Your task to perform on an android device: clear all cookies in the chrome app Image 0: 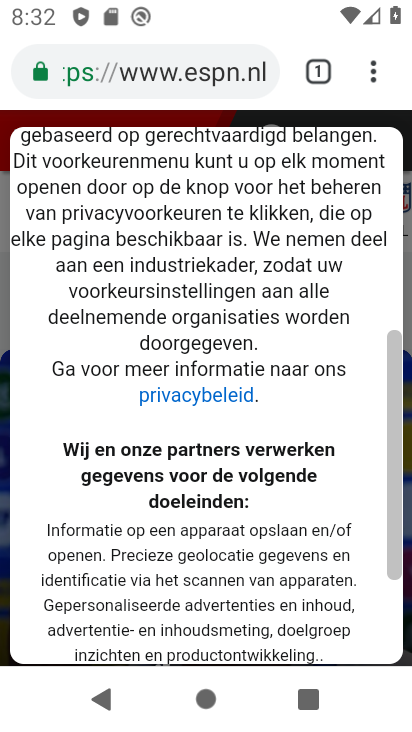
Step 0: click (372, 92)
Your task to perform on an android device: clear all cookies in the chrome app Image 1: 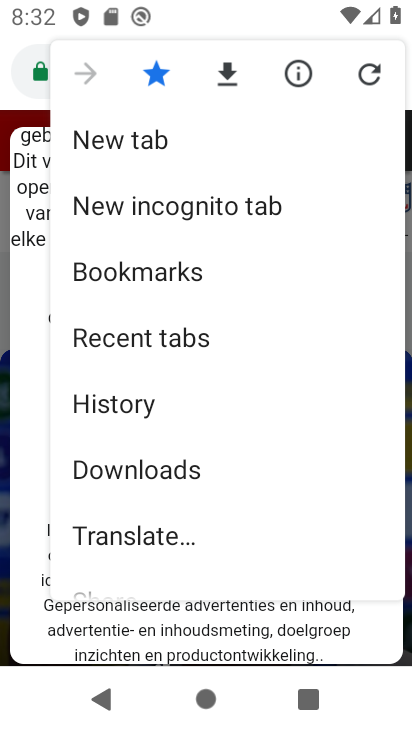
Step 1: click (192, 400)
Your task to perform on an android device: clear all cookies in the chrome app Image 2: 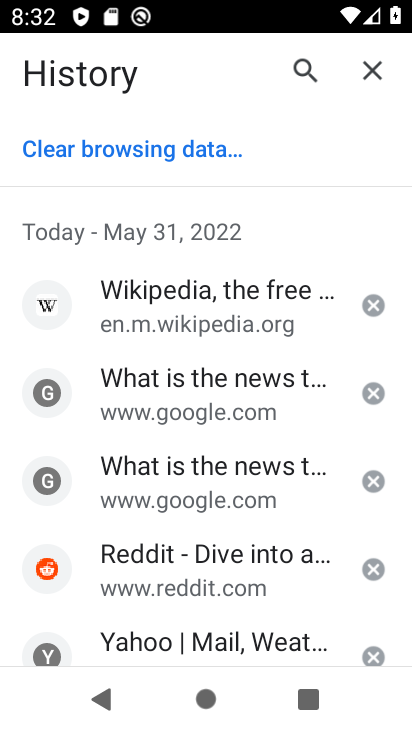
Step 2: click (152, 153)
Your task to perform on an android device: clear all cookies in the chrome app Image 3: 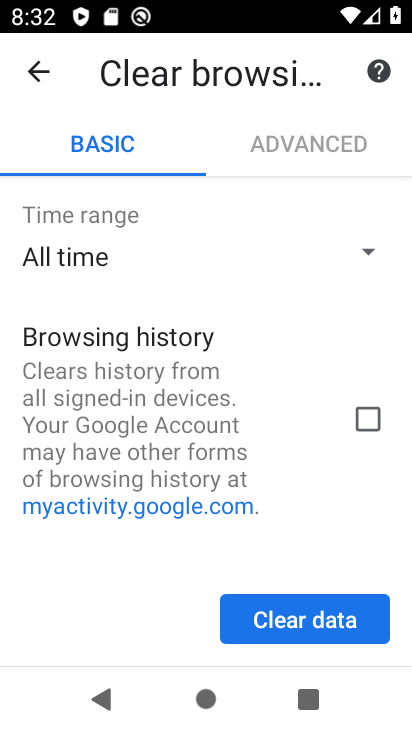
Step 3: drag from (262, 531) to (250, 291)
Your task to perform on an android device: clear all cookies in the chrome app Image 4: 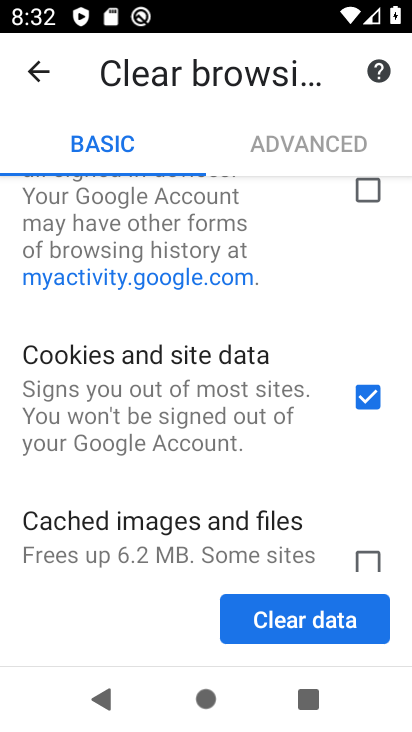
Step 4: click (330, 632)
Your task to perform on an android device: clear all cookies in the chrome app Image 5: 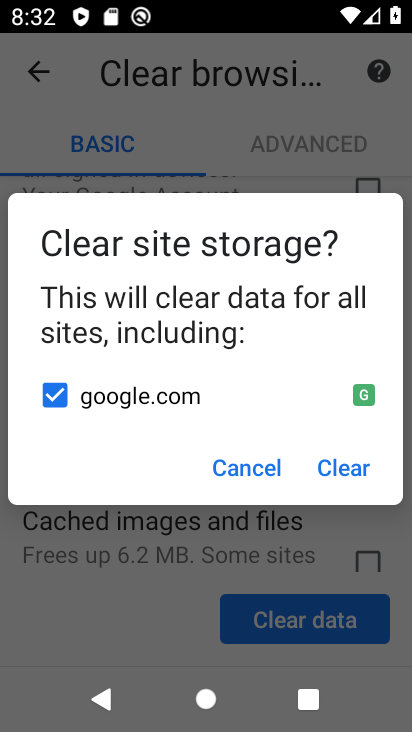
Step 5: click (367, 461)
Your task to perform on an android device: clear all cookies in the chrome app Image 6: 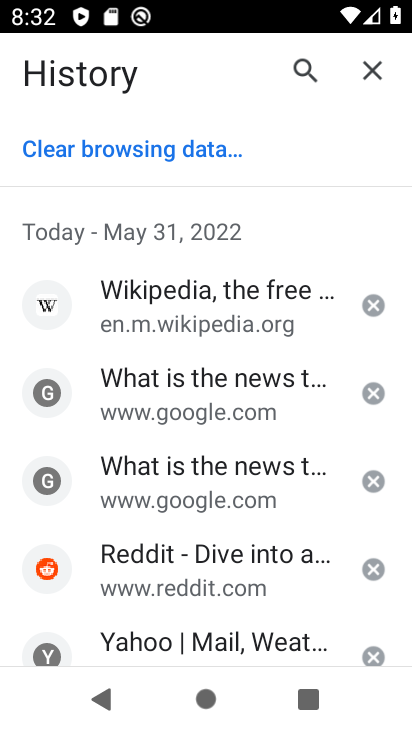
Step 6: task complete